Your task to perform on an android device: move an email to a new category in the gmail app Image 0: 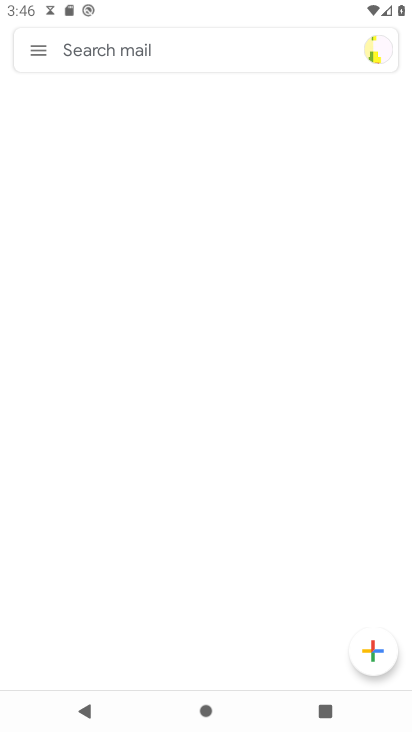
Step 0: press home button
Your task to perform on an android device: move an email to a new category in the gmail app Image 1: 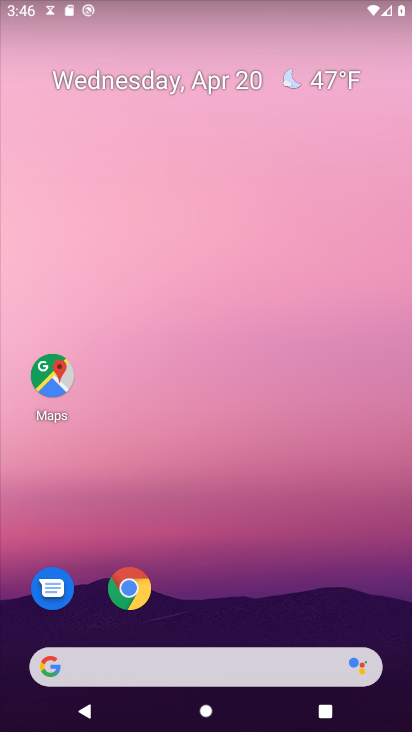
Step 1: drag from (294, 596) to (296, 39)
Your task to perform on an android device: move an email to a new category in the gmail app Image 2: 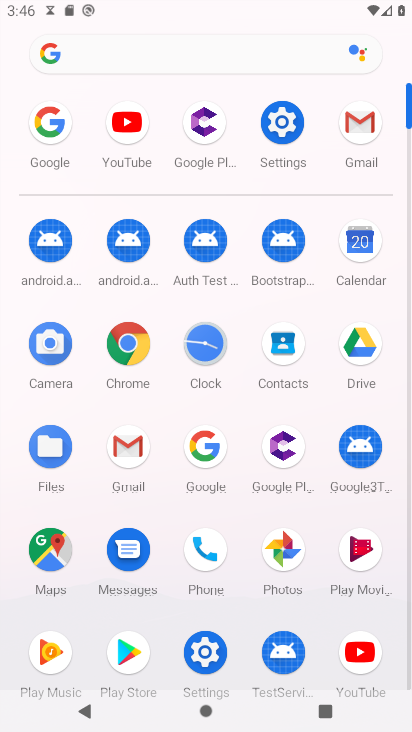
Step 2: click (117, 457)
Your task to perform on an android device: move an email to a new category in the gmail app Image 3: 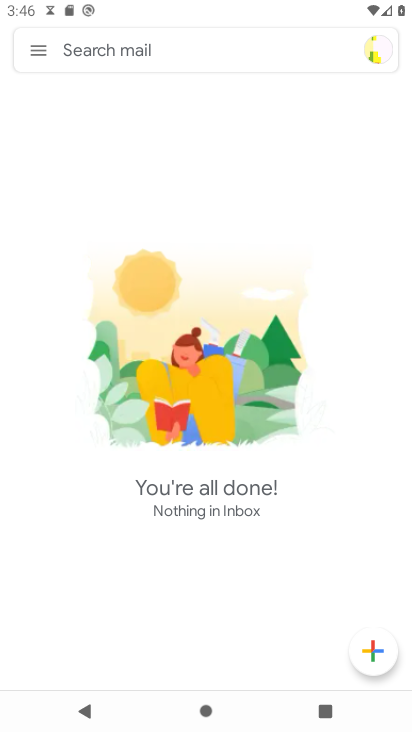
Step 3: click (42, 48)
Your task to perform on an android device: move an email to a new category in the gmail app Image 4: 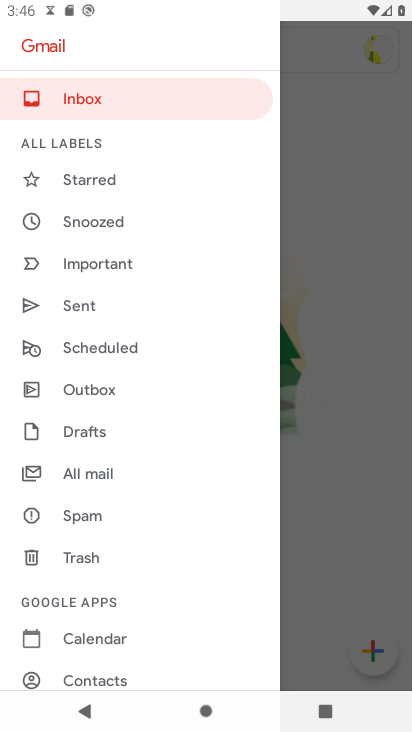
Step 4: click (69, 476)
Your task to perform on an android device: move an email to a new category in the gmail app Image 5: 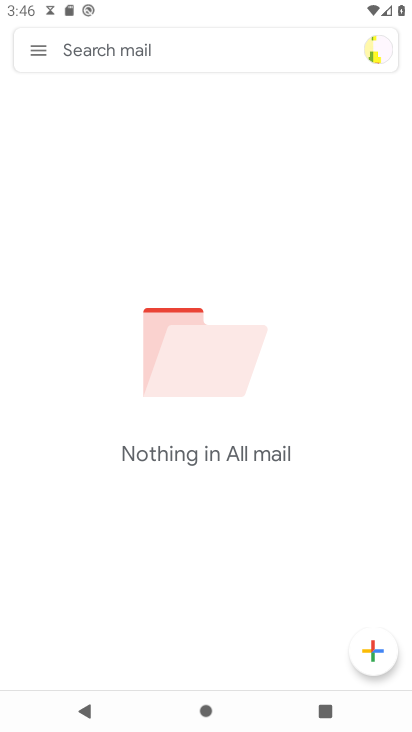
Step 5: task complete